Your task to perform on an android device: Go to Amazon Image 0: 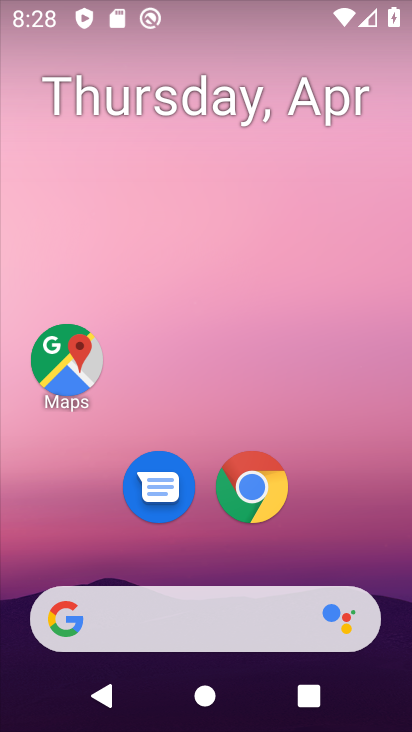
Step 0: click (237, 506)
Your task to perform on an android device: Go to Amazon Image 1: 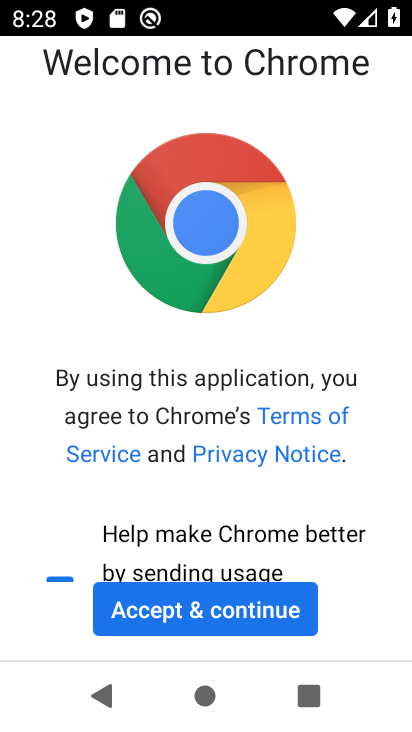
Step 1: click (209, 599)
Your task to perform on an android device: Go to Amazon Image 2: 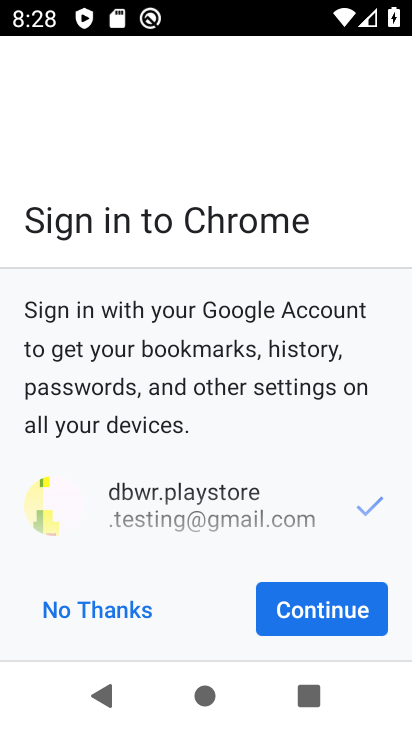
Step 2: click (291, 610)
Your task to perform on an android device: Go to Amazon Image 3: 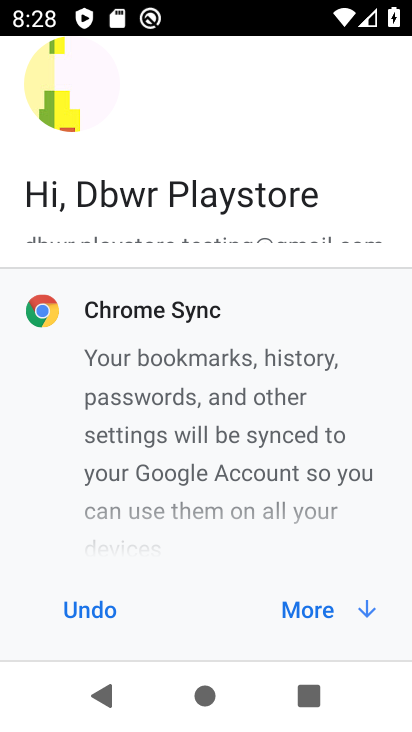
Step 3: click (288, 608)
Your task to perform on an android device: Go to Amazon Image 4: 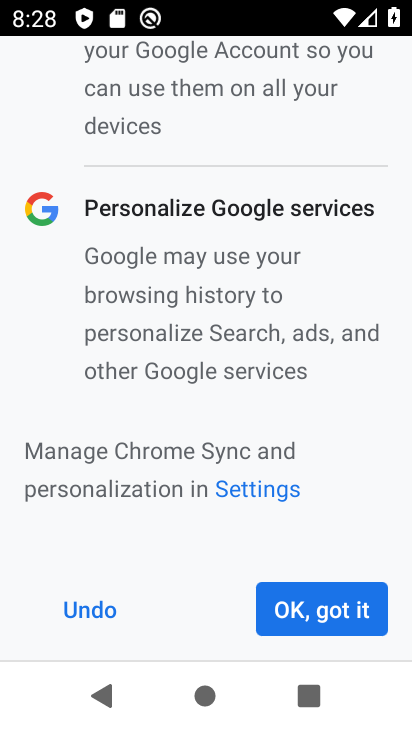
Step 4: click (289, 606)
Your task to perform on an android device: Go to Amazon Image 5: 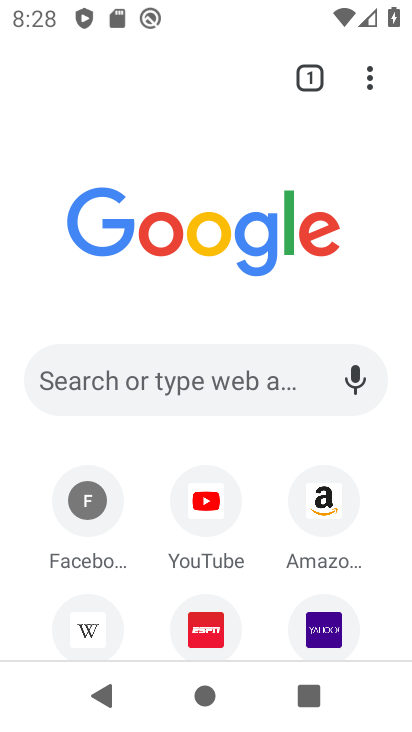
Step 5: click (316, 503)
Your task to perform on an android device: Go to Amazon Image 6: 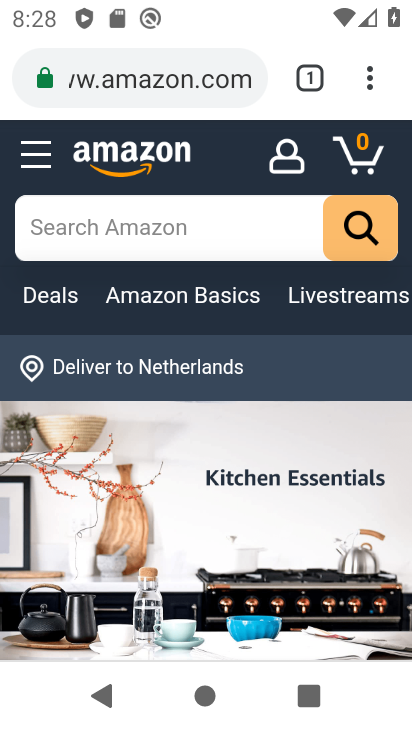
Step 6: task complete